Your task to perform on an android device: change the clock display to analog Image 0: 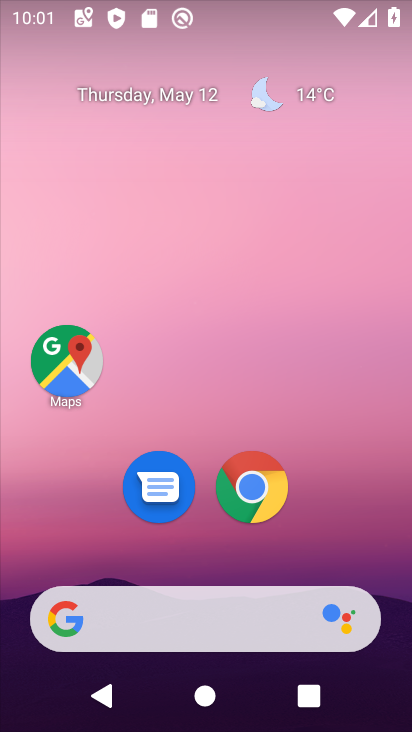
Step 0: drag from (6, 693) to (285, 227)
Your task to perform on an android device: change the clock display to analog Image 1: 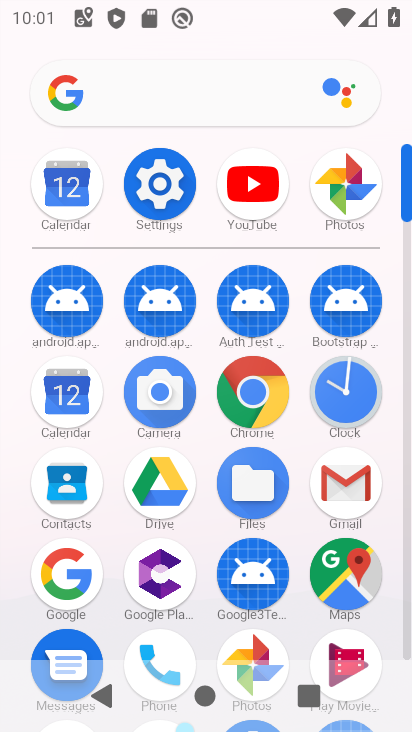
Step 1: click (334, 380)
Your task to perform on an android device: change the clock display to analog Image 2: 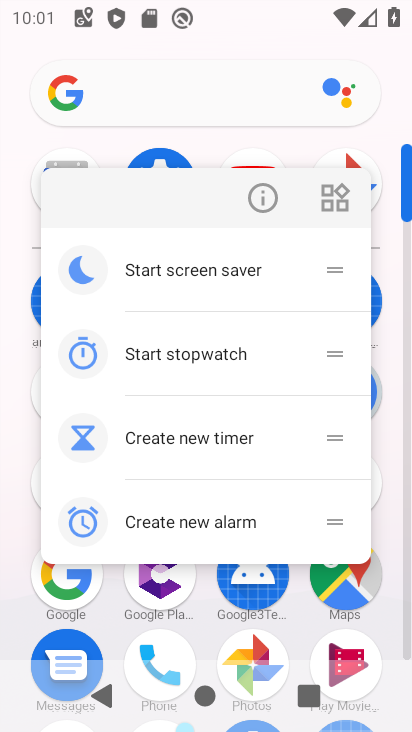
Step 2: click (266, 199)
Your task to perform on an android device: change the clock display to analog Image 3: 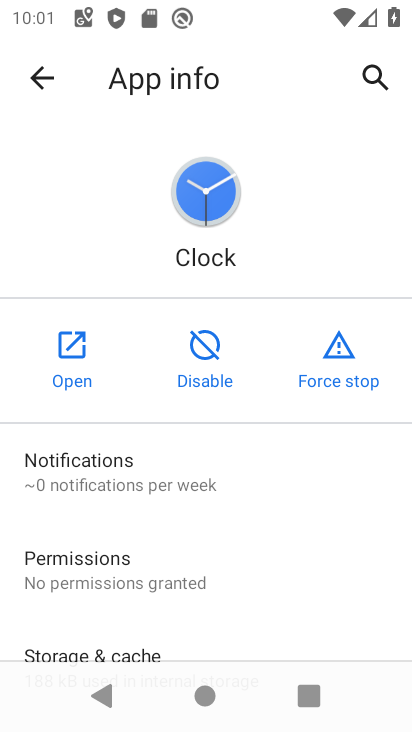
Step 3: click (57, 346)
Your task to perform on an android device: change the clock display to analog Image 4: 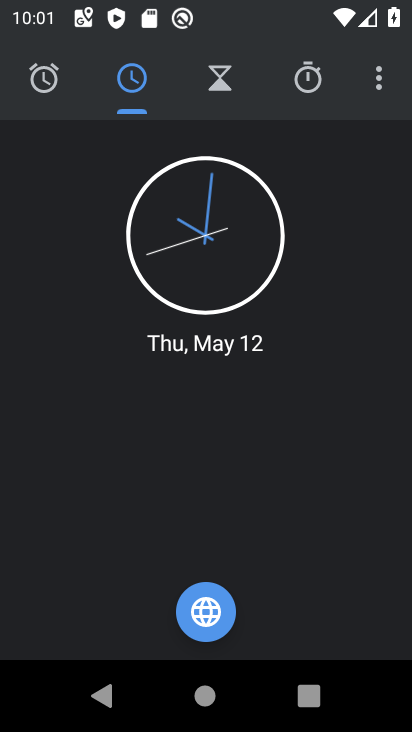
Step 4: click (371, 84)
Your task to perform on an android device: change the clock display to analog Image 5: 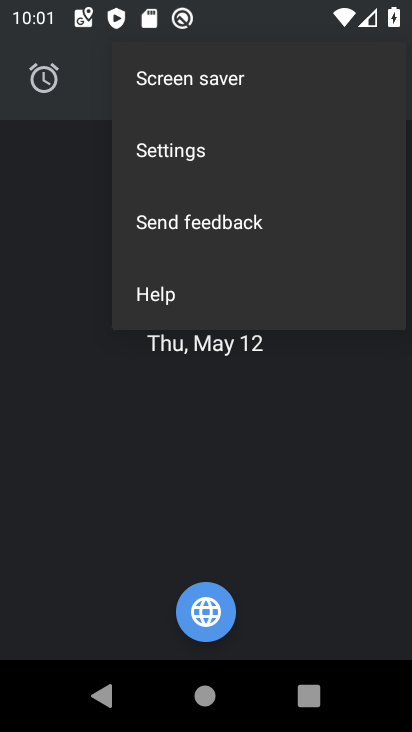
Step 5: click (225, 146)
Your task to perform on an android device: change the clock display to analog Image 6: 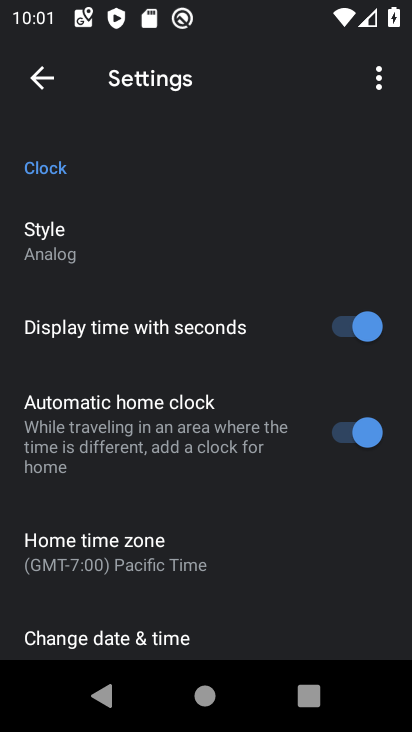
Step 6: click (97, 247)
Your task to perform on an android device: change the clock display to analog Image 7: 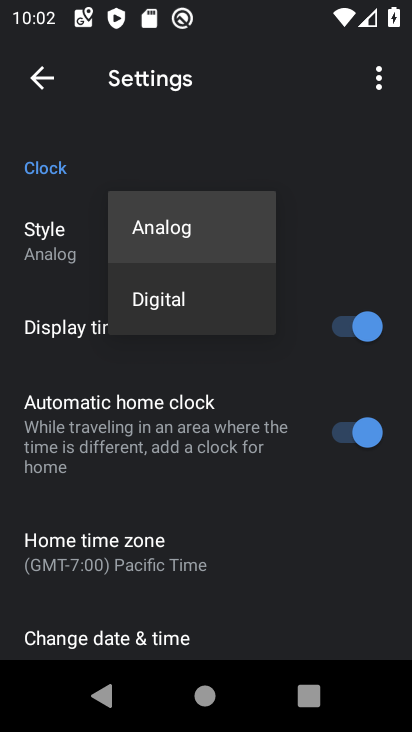
Step 7: click (182, 231)
Your task to perform on an android device: change the clock display to analog Image 8: 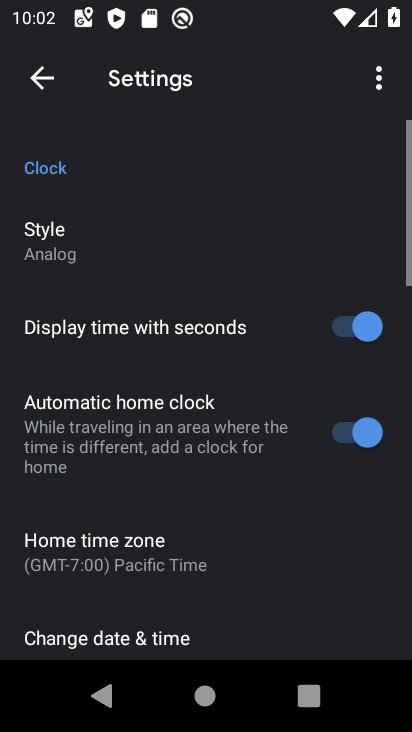
Step 8: task complete